Your task to perform on an android device: Search for Mexican restaurants on Maps Image 0: 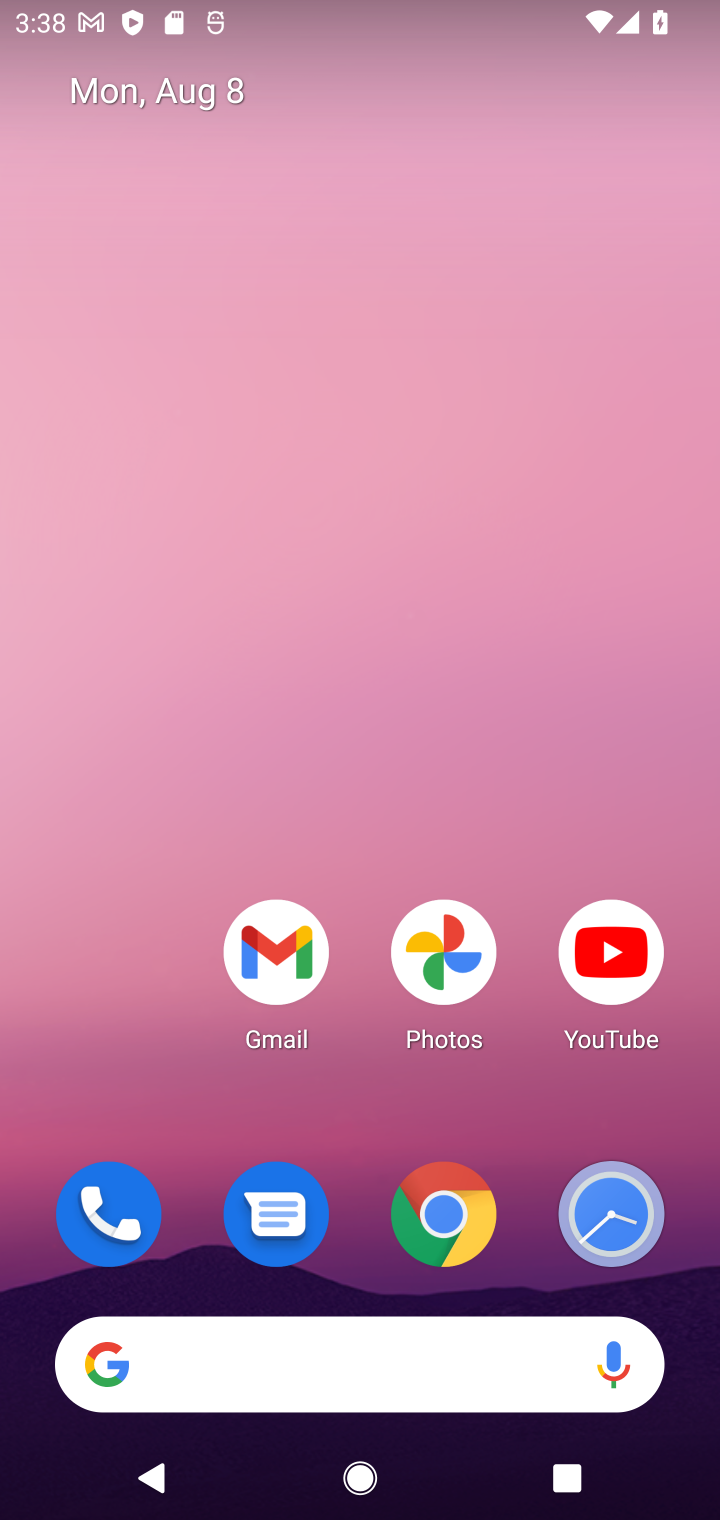
Step 0: drag from (357, 1301) to (366, 102)
Your task to perform on an android device: Search for Mexican restaurants on Maps Image 1: 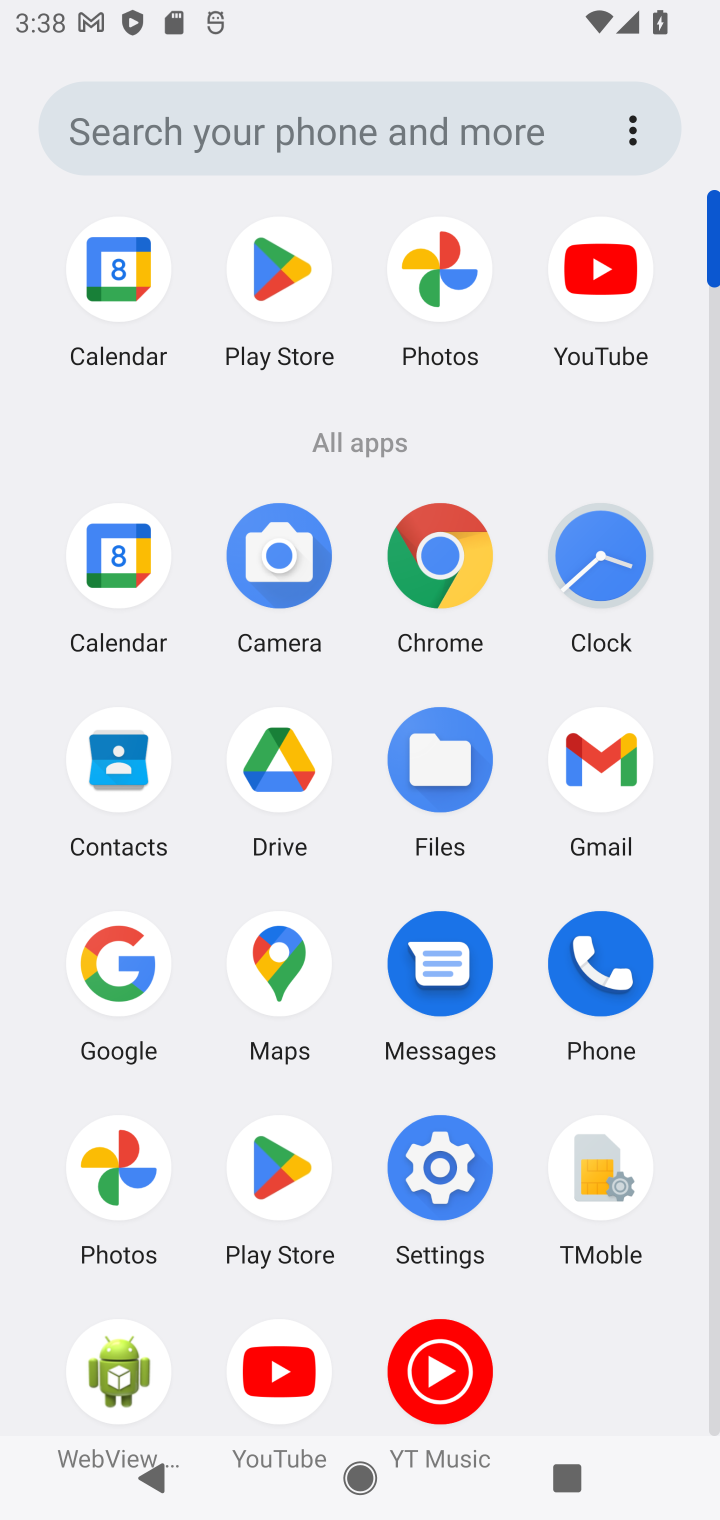
Step 1: click (277, 976)
Your task to perform on an android device: Search for Mexican restaurants on Maps Image 2: 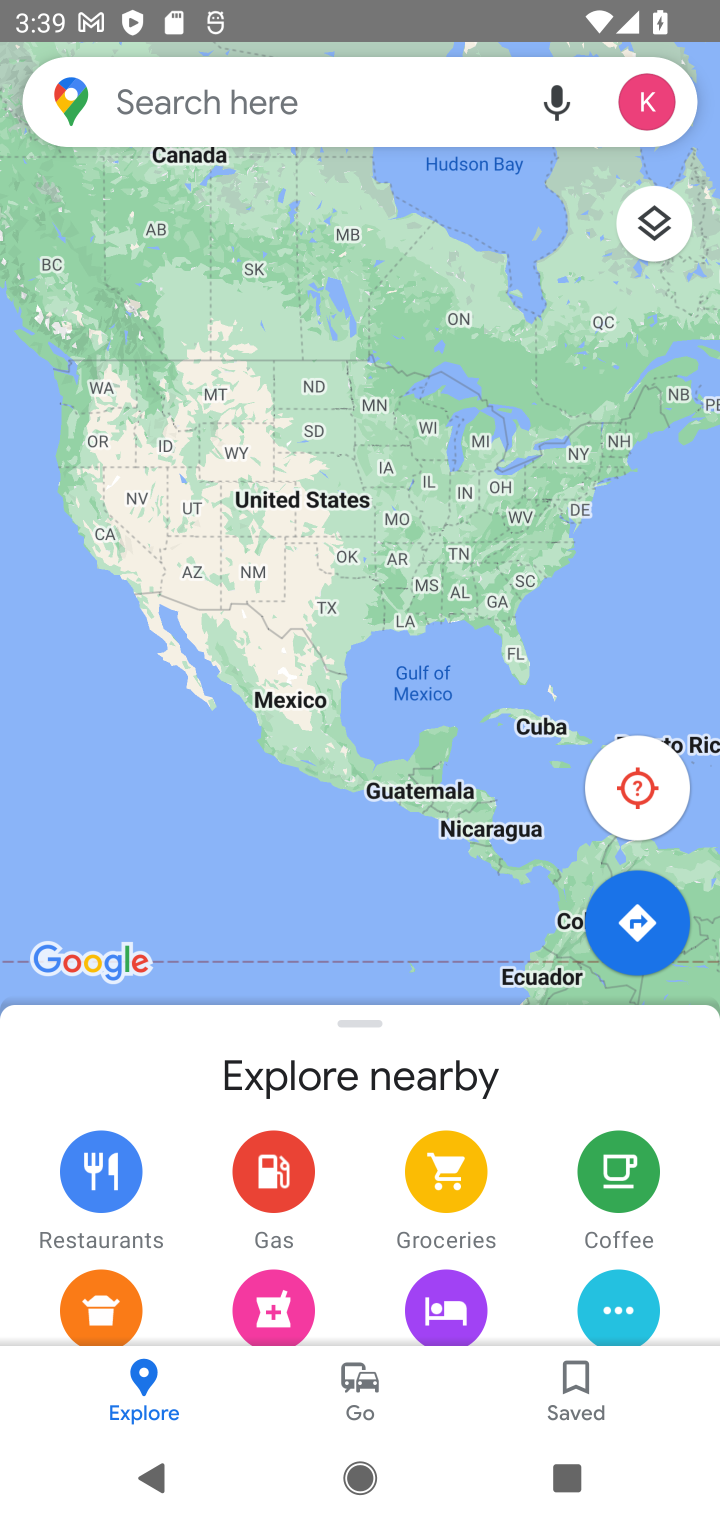
Step 2: click (385, 113)
Your task to perform on an android device: Search for Mexican restaurants on Maps Image 3: 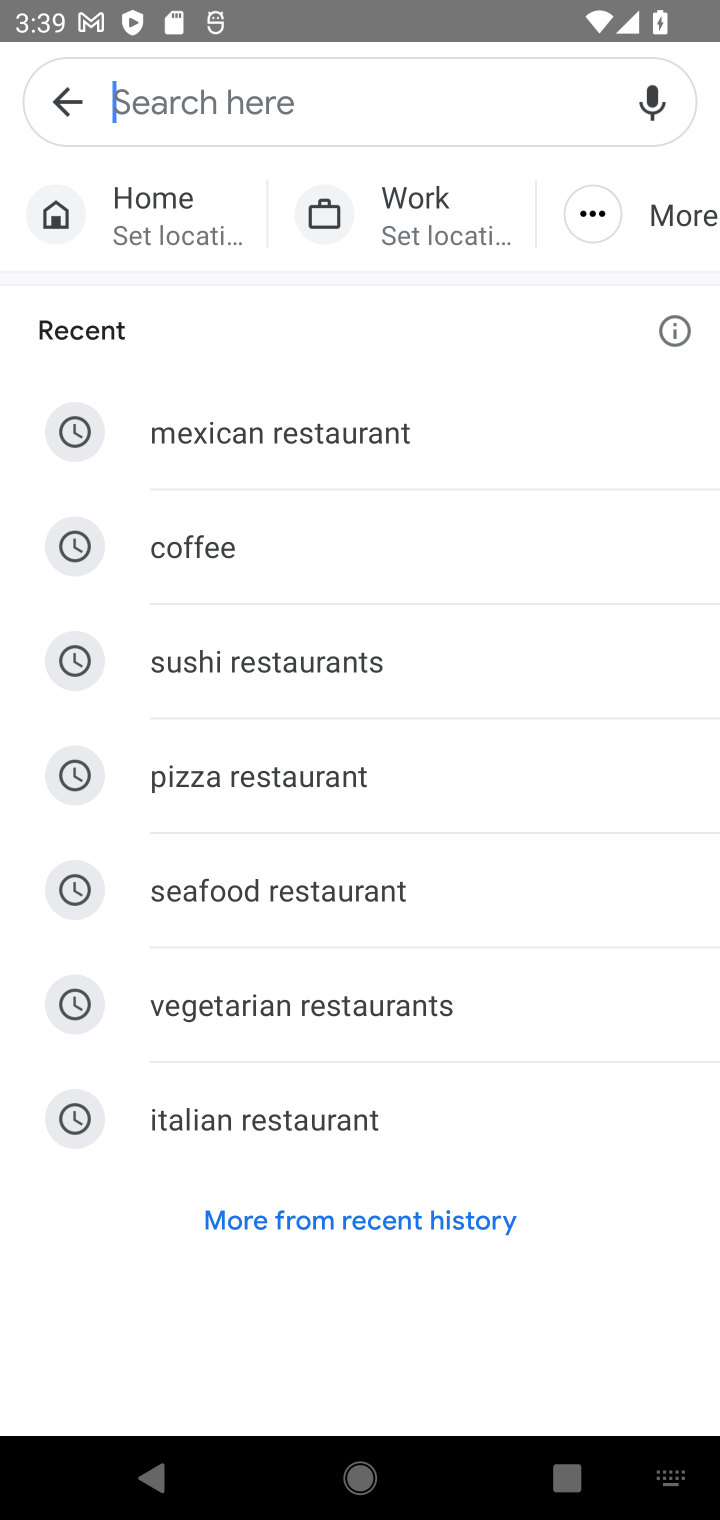
Step 3: type "Mexican restaurants"
Your task to perform on an android device: Search for Mexican restaurants on Maps Image 4: 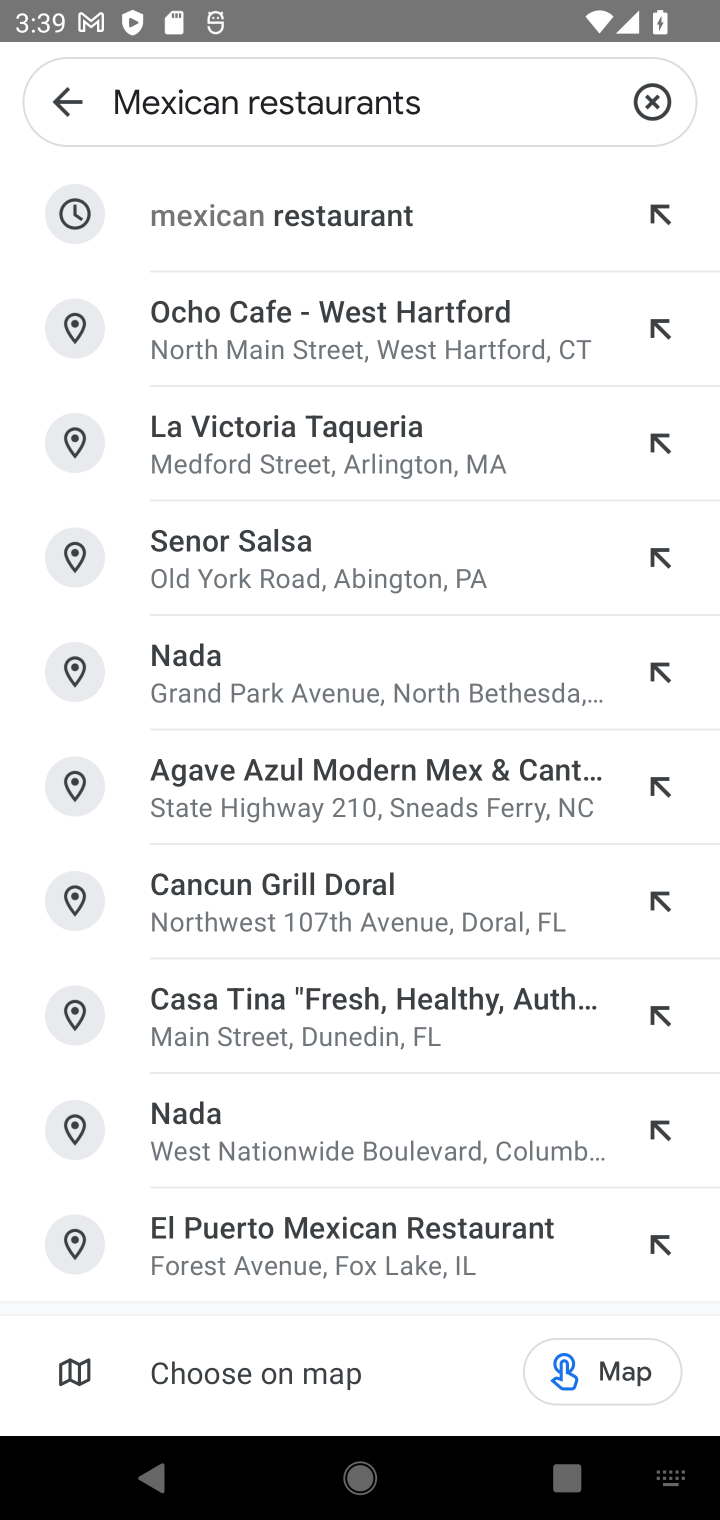
Step 4: click (377, 220)
Your task to perform on an android device: Search for Mexican restaurants on Maps Image 5: 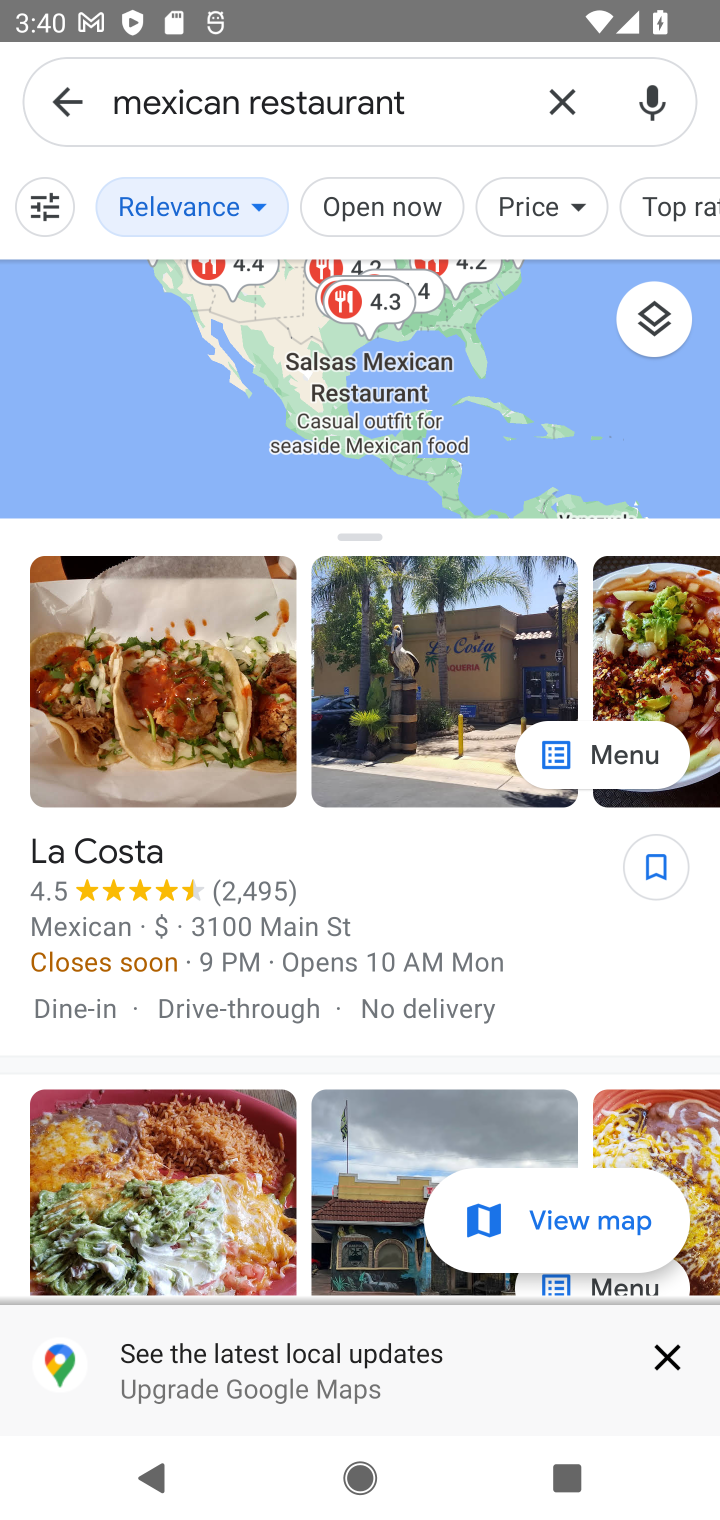
Step 5: task complete